Your task to perform on an android device: turn off notifications in google photos Image 0: 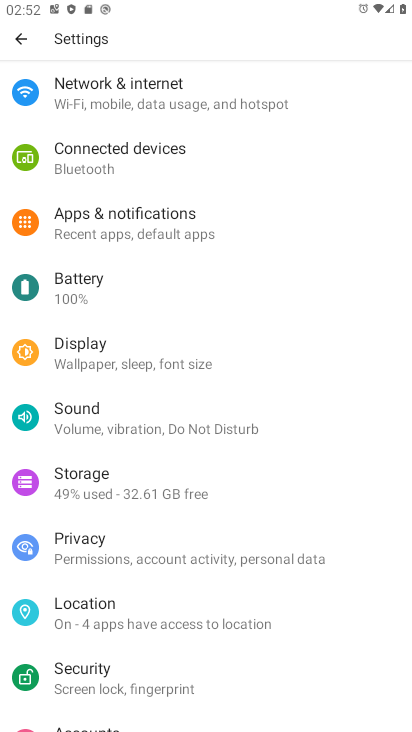
Step 0: press home button
Your task to perform on an android device: turn off notifications in google photos Image 1: 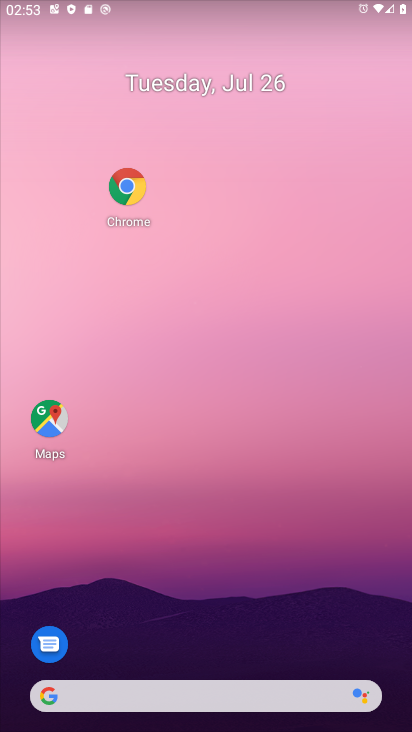
Step 1: drag from (207, 648) to (240, 222)
Your task to perform on an android device: turn off notifications in google photos Image 2: 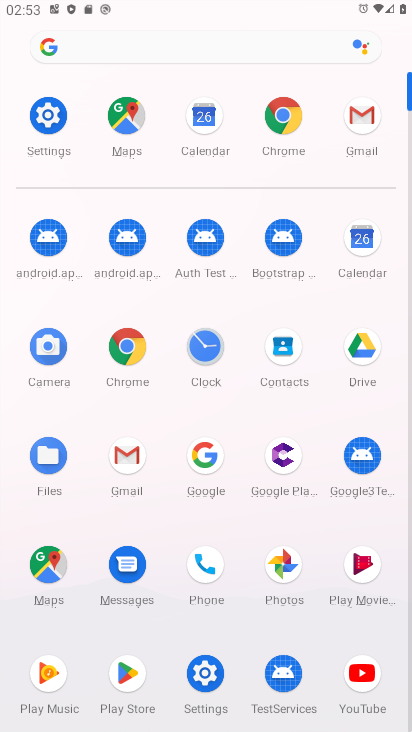
Step 2: click (288, 557)
Your task to perform on an android device: turn off notifications in google photos Image 3: 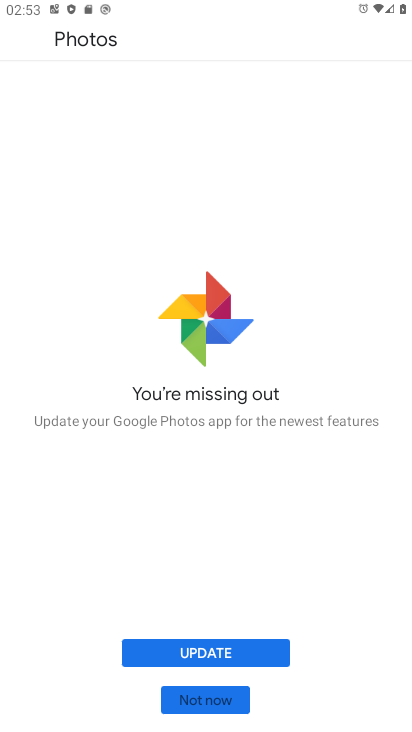
Step 3: click (216, 704)
Your task to perform on an android device: turn off notifications in google photos Image 4: 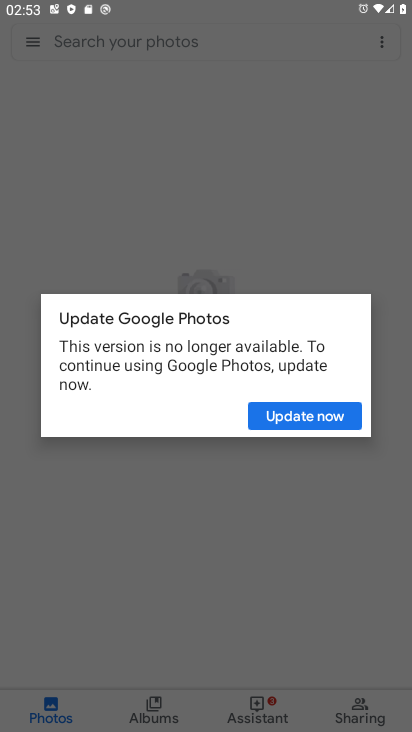
Step 4: click (283, 405)
Your task to perform on an android device: turn off notifications in google photos Image 5: 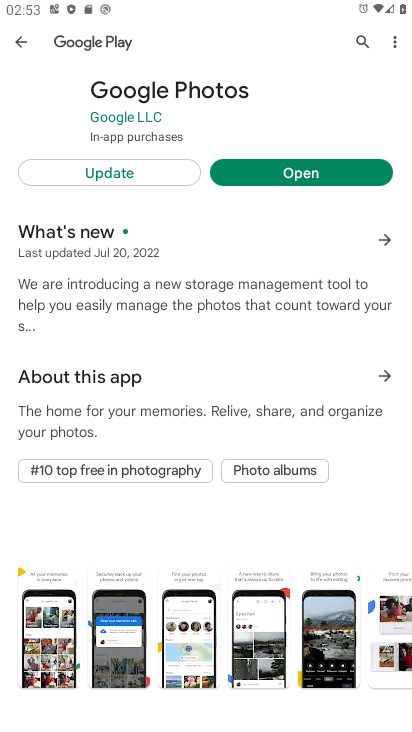
Step 5: press back button
Your task to perform on an android device: turn off notifications in google photos Image 6: 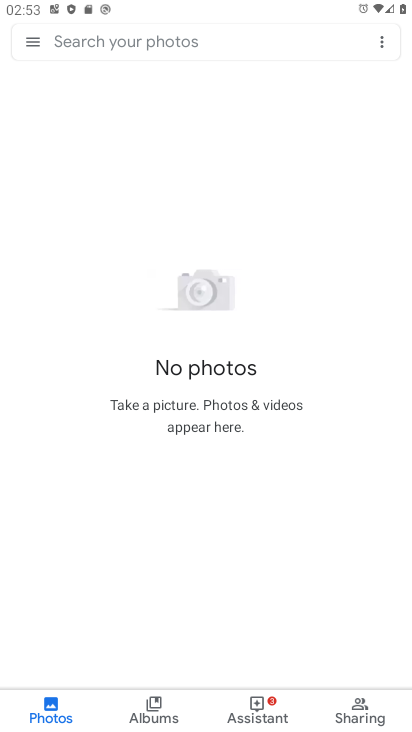
Step 6: click (35, 37)
Your task to perform on an android device: turn off notifications in google photos Image 7: 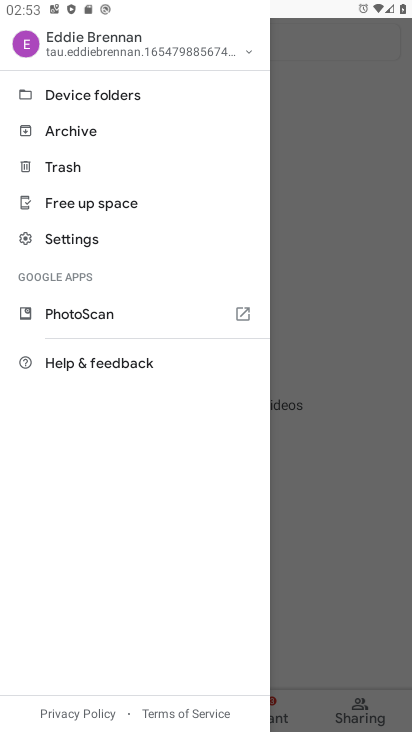
Step 7: click (70, 231)
Your task to perform on an android device: turn off notifications in google photos Image 8: 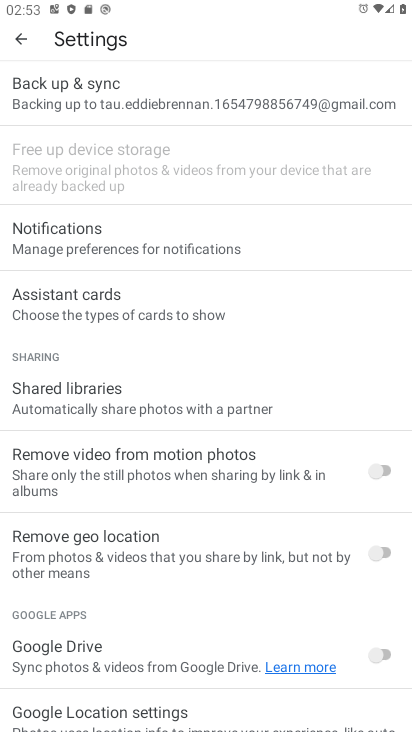
Step 8: click (113, 243)
Your task to perform on an android device: turn off notifications in google photos Image 9: 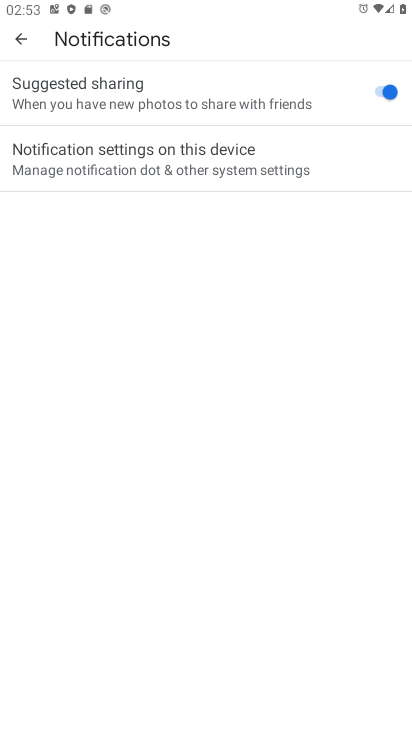
Step 9: click (113, 155)
Your task to perform on an android device: turn off notifications in google photos Image 10: 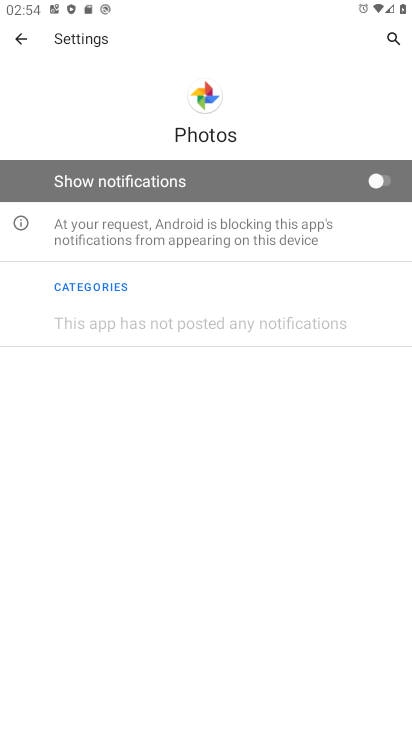
Step 10: task complete